Your task to perform on an android device: Open Chrome and go to the settings page Image 0: 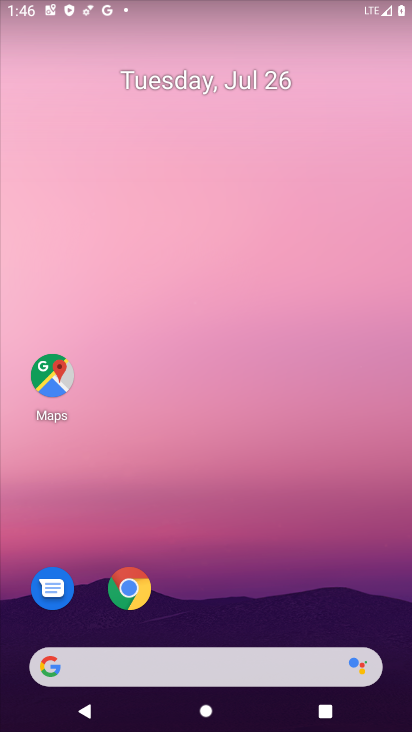
Step 0: drag from (234, 642) to (213, 55)
Your task to perform on an android device: Open Chrome and go to the settings page Image 1: 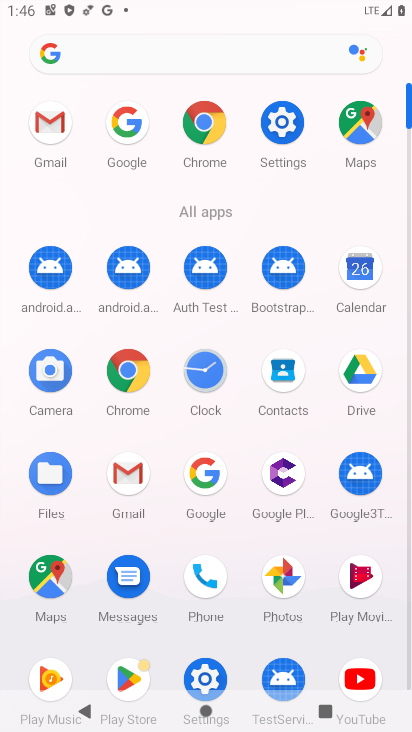
Step 1: click (277, 138)
Your task to perform on an android device: Open Chrome and go to the settings page Image 2: 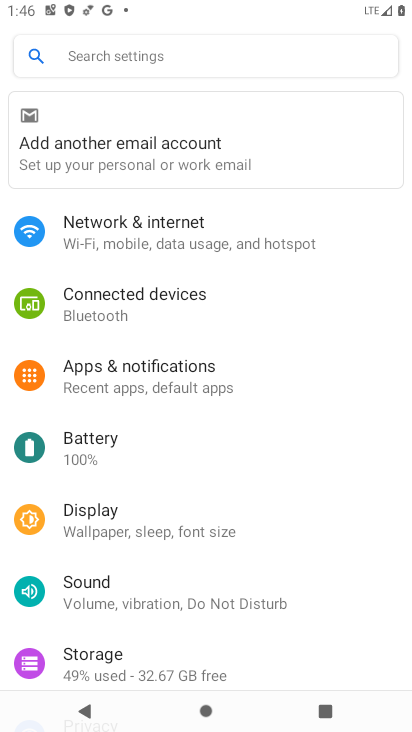
Step 2: press home button
Your task to perform on an android device: Open Chrome and go to the settings page Image 3: 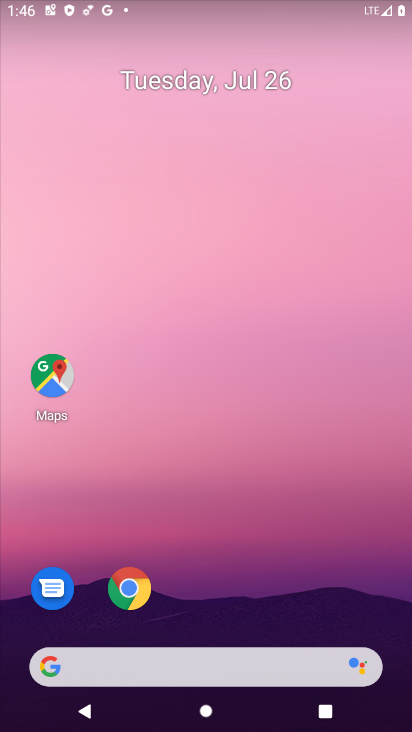
Step 3: drag from (215, 643) to (158, 17)
Your task to perform on an android device: Open Chrome and go to the settings page Image 4: 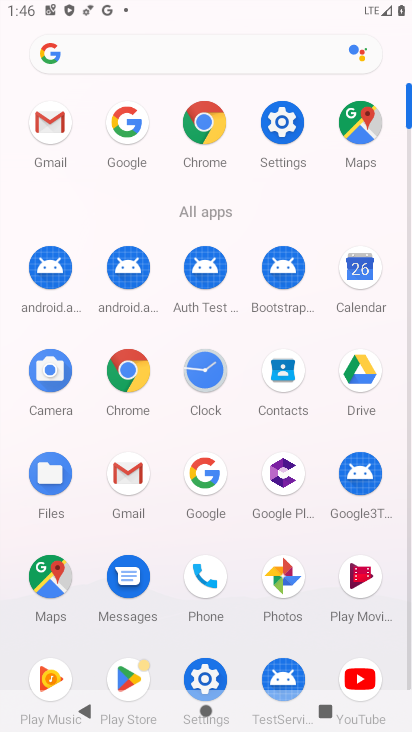
Step 4: click (202, 128)
Your task to perform on an android device: Open Chrome and go to the settings page Image 5: 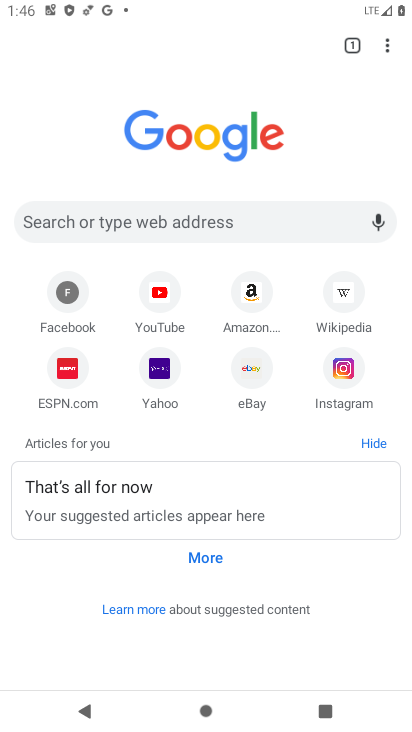
Step 5: task complete